Your task to perform on an android device: snooze an email in the gmail app Image 0: 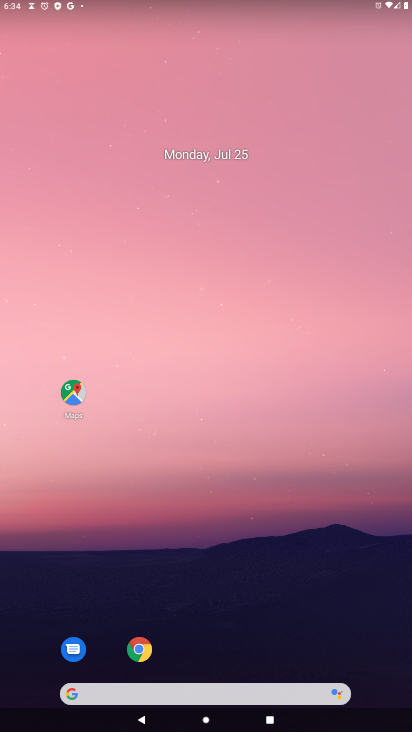
Step 0: drag from (203, 692) to (294, 134)
Your task to perform on an android device: snooze an email in the gmail app Image 1: 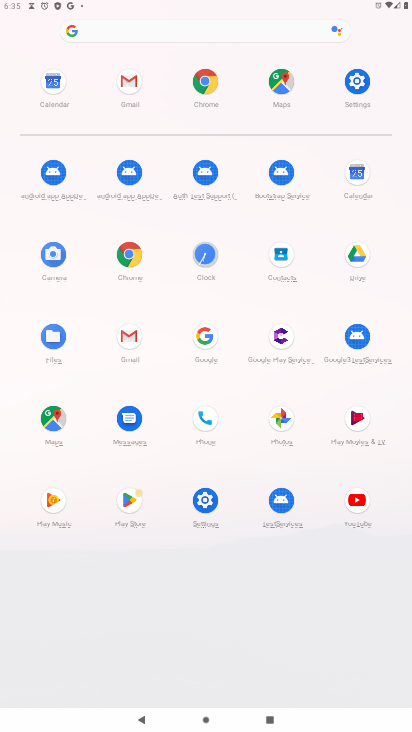
Step 1: click (131, 338)
Your task to perform on an android device: snooze an email in the gmail app Image 2: 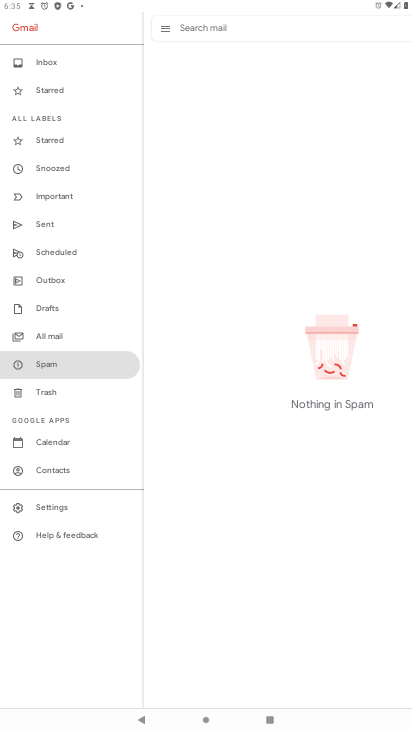
Step 2: click (63, 166)
Your task to perform on an android device: snooze an email in the gmail app Image 3: 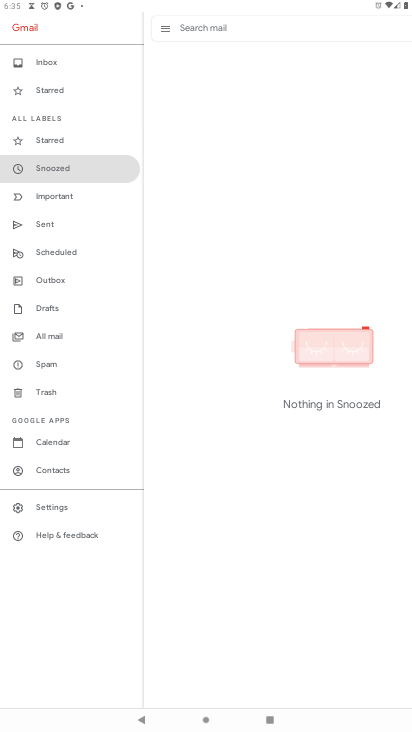
Step 3: task complete